Your task to perform on an android device: see tabs open on other devices in the chrome app Image 0: 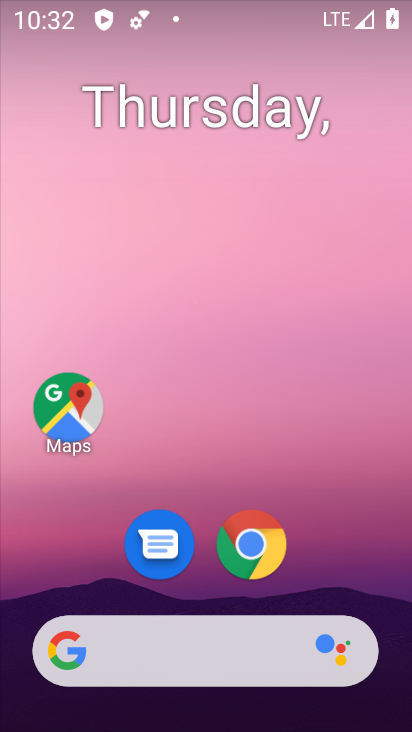
Step 0: click (246, 547)
Your task to perform on an android device: see tabs open on other devices in the chrome app Image 1: 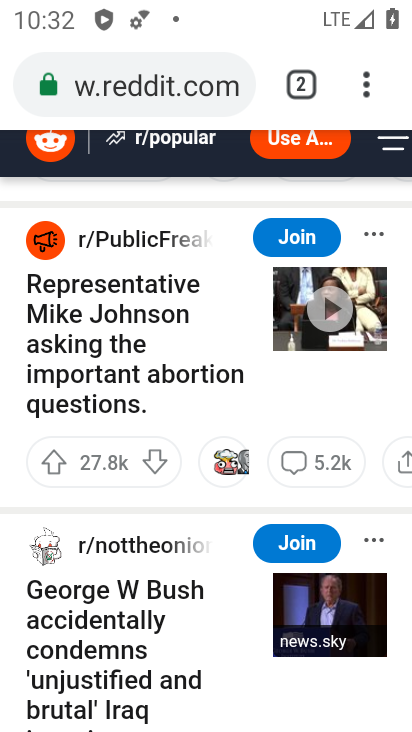
Step 1: click (364, 88)
Your task to perform on an android device: see tabs open on other devices in the chrome app Image 2: 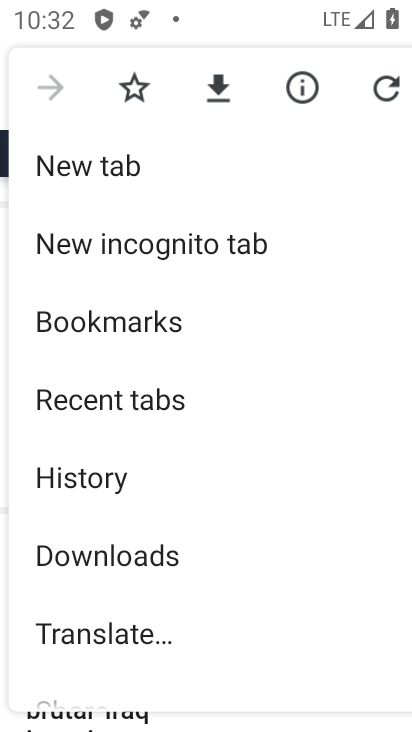
Step 2: click (74, 391)
Your task to perform on an android device: see tabs open on other devices in the chrome app Image 3: 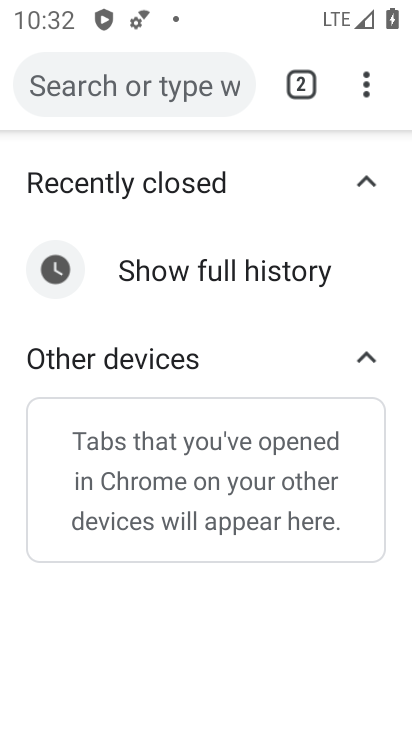
Step 3: click (83, 357)
Your task to perform on an android device: see tabs open on other devices in the chrome app Image 4: 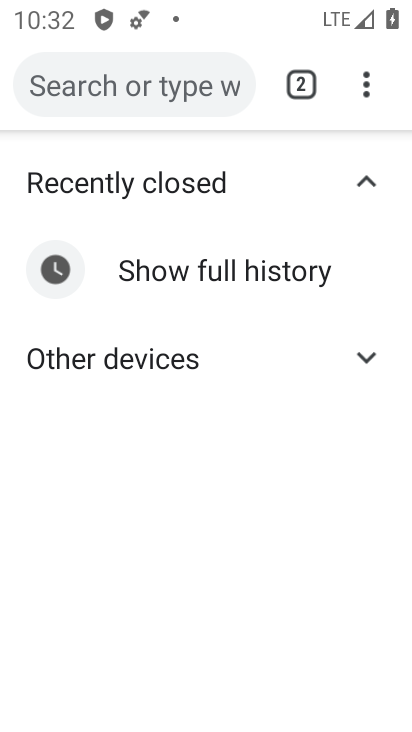
Step 4: click (83, 357)
Your task to perform on an android device: see tabs open on other devices in the chrome app Image 5: 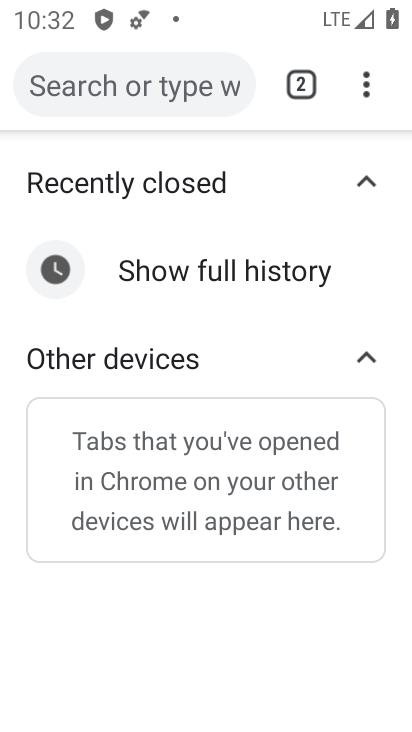
Step 5: task complete